Your task to perform on an android device: Go to display settings Image 0: 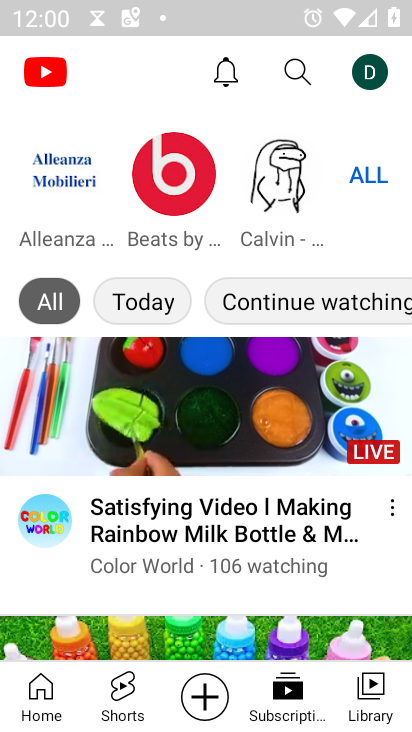
Step 0: press home button
Your task to perform on an android device: Go to display settings Image 1: 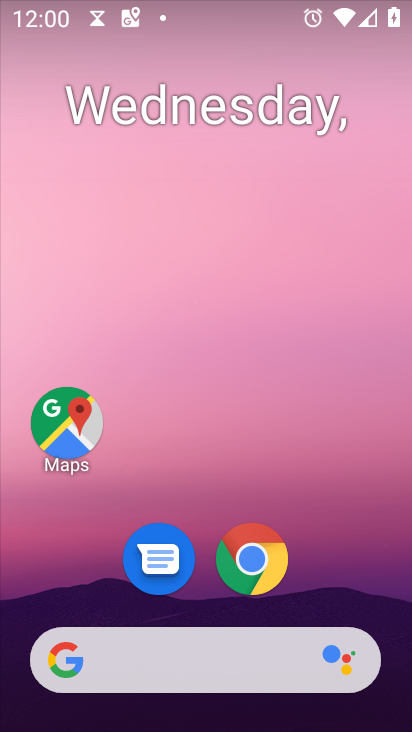
Step 1: drag from (314, 395) to (307, 18)
Your task to perform on an android device: Go to display settings Image 2: 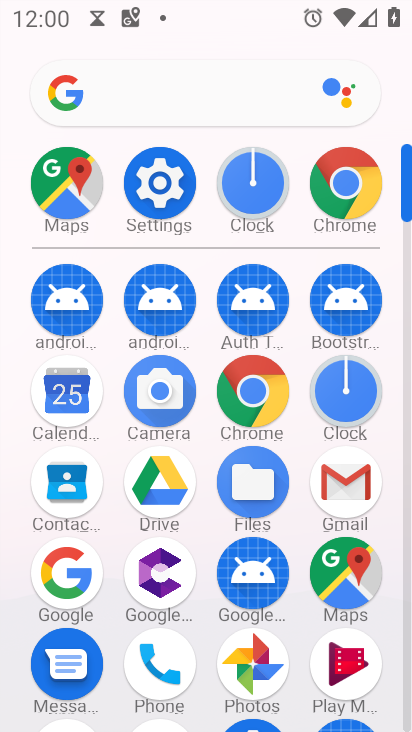
Step 2: click (161, 195)
Your task to perform on an android device: Go to display settings Image 3: 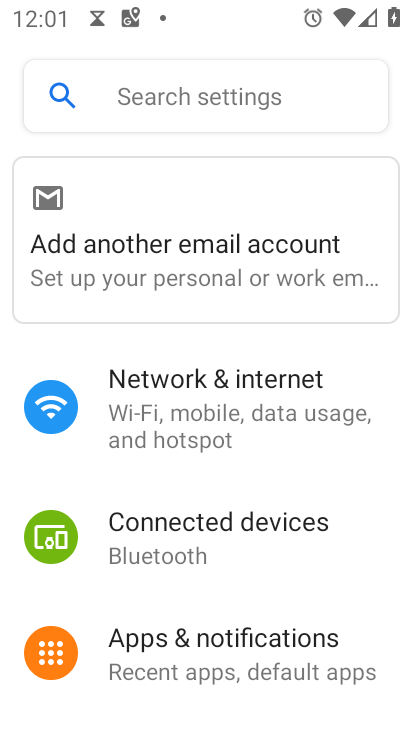
Step 3: drag from (266, 635) to (189, 183)
Your task to perform on an android device: Go to display settings Image 4: 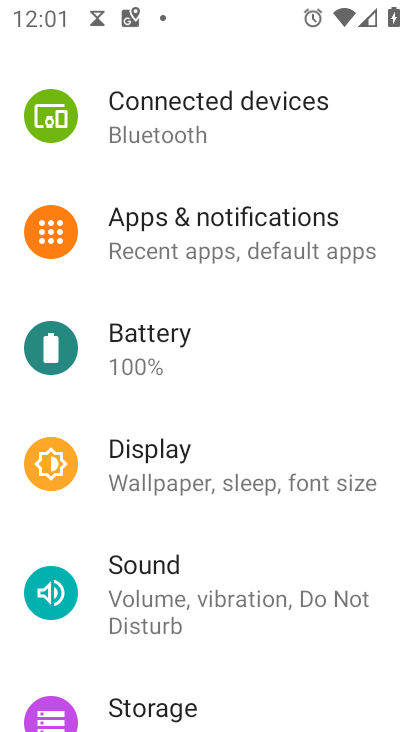
Step 4: click (196, 474)
Your task to perform on an android device: Go to display settings Image 5: 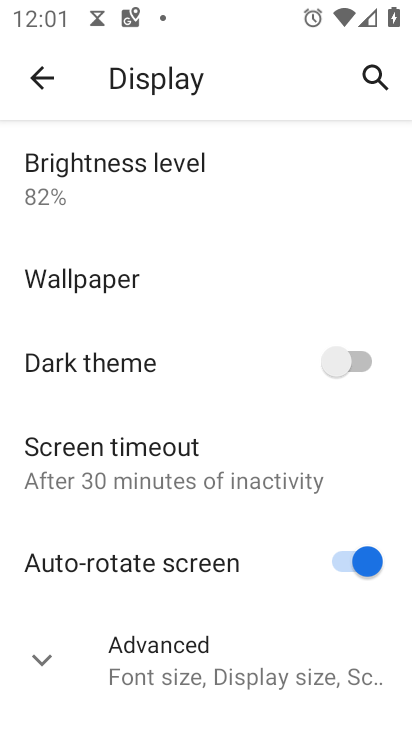
Step 5: task complete